Your task to perform on an android device: check android version Image 0: 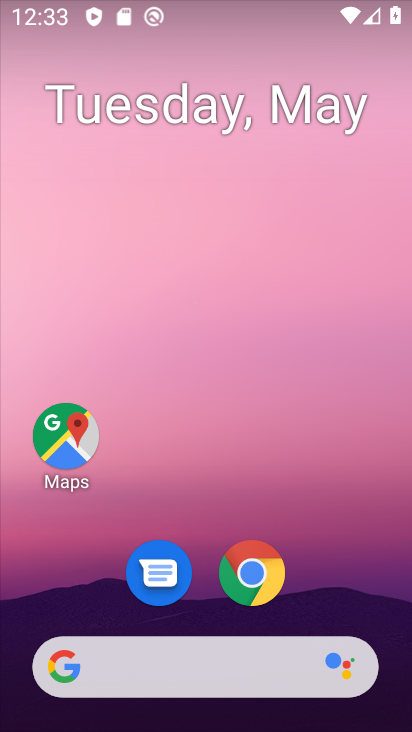
Step 0: drag from (325, 498) to (286, 19)
Your task to perform on an android device: check android version Image 1: 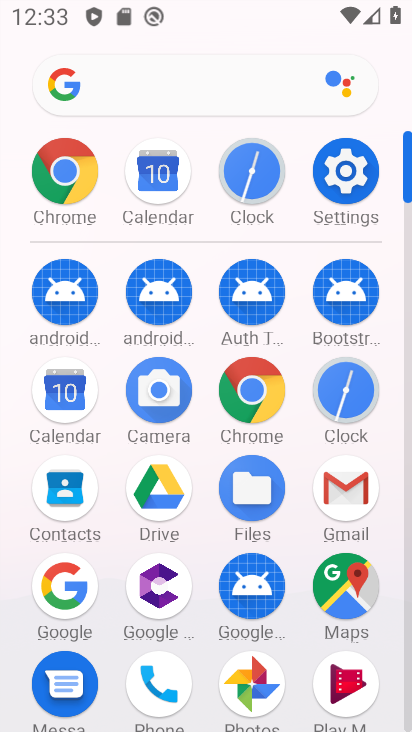
Step 1: click (338, 167)
Your task to perform on an android device: check android version Image 2: 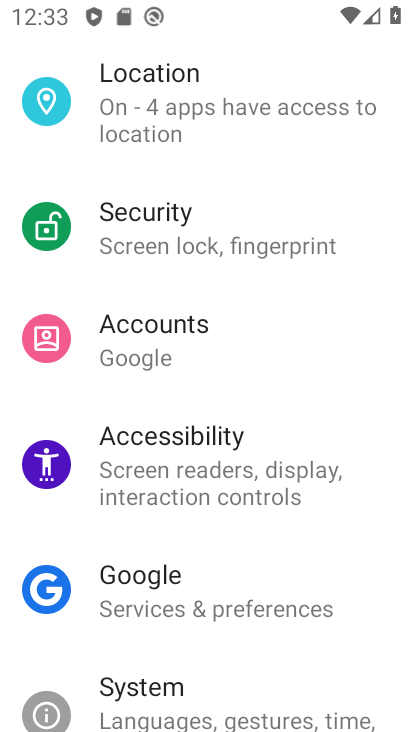
Step 2: drag from (338, 167) to (305, 544)
Your task to perform on an android device: check android version Image 3: 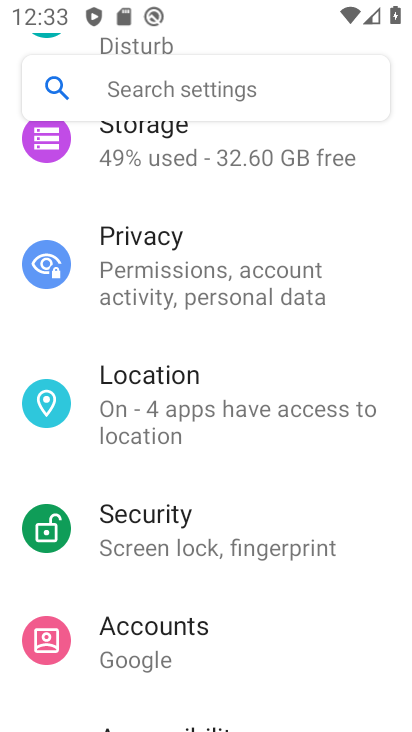
Step 3: drag from (281, 218) to (327, 547)
Your task to perform on an android device: check android version Image 4: 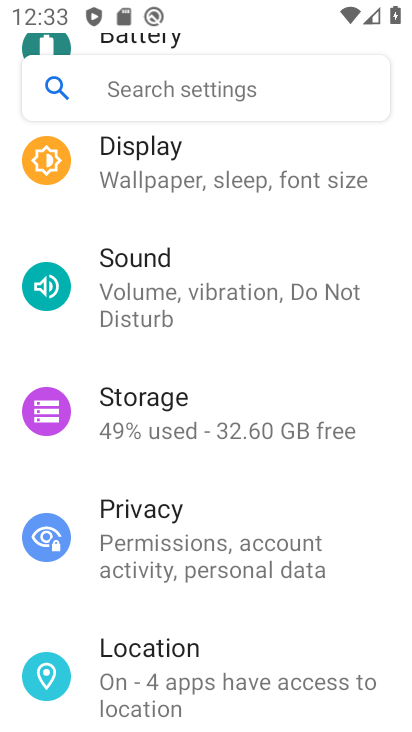
Step 4: drag from (237, 204) to (230, 528)
Your task to perform on an android device: check android version Image 5: 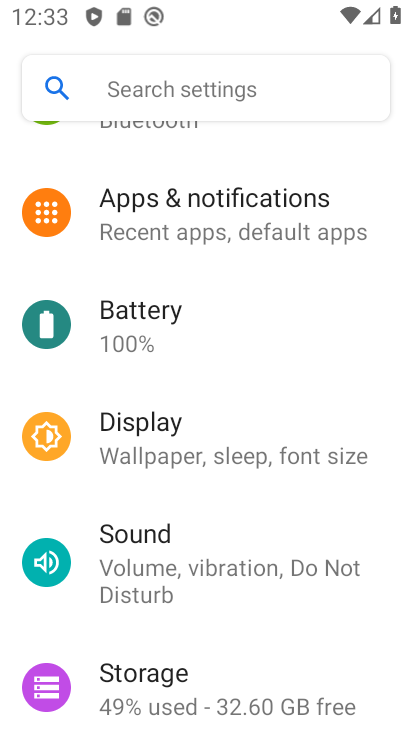
Step 5: drag from (283, 680) to (363, 169)
Your task to perform on an android device: check android version Image 6: 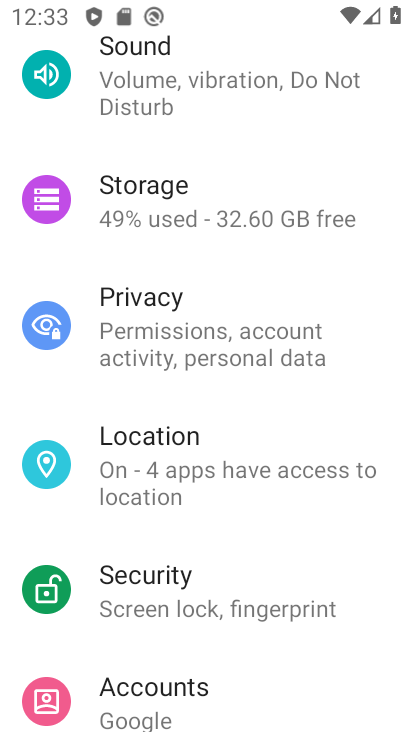
Step 6: drag from (227, 580) to (247, 59)
Your task to perform on an android device: check android version Image 7: 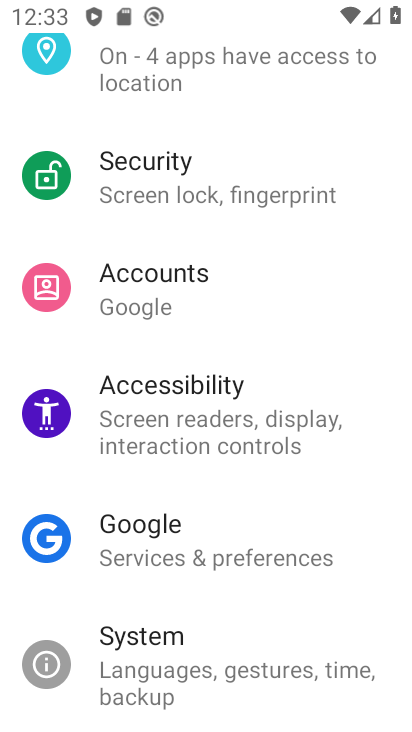
Step 7: drag from (256, 528) to (338, 98)
Your task to perform on an android device: check android version Image 8: 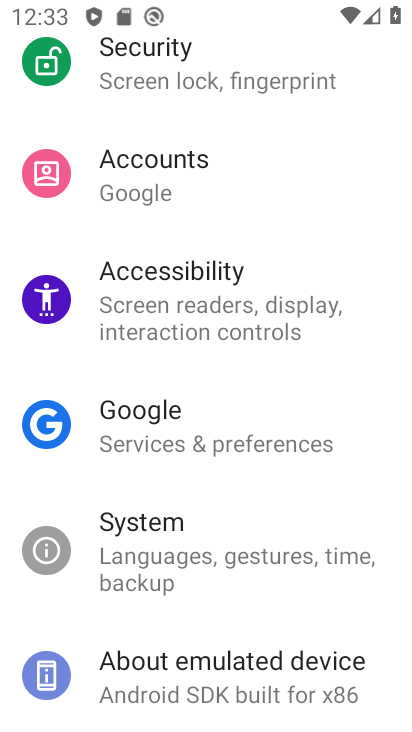
Step 8: drag from (277, 526) to (316, 152)
Your task to perform on an android device: check android version Image 9: 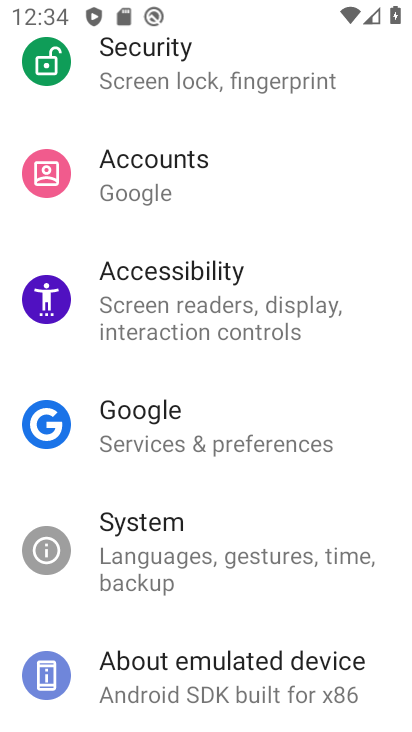
Step 9: click (233, 673)
Your task to perform on an android device: check android version Image 10: 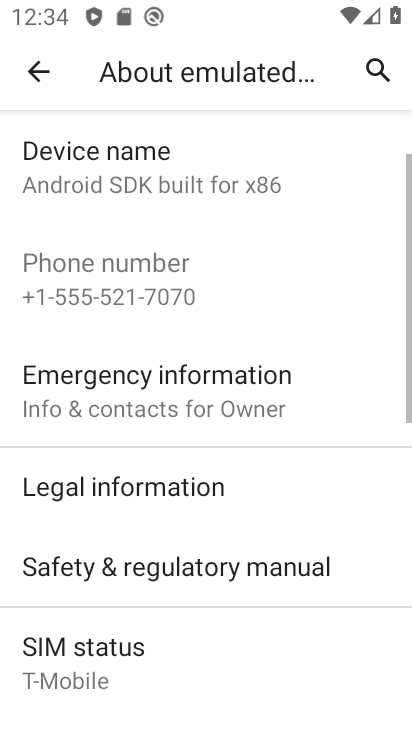
Step 10: drag from (240, 635) to (174, 211)
Your task to perform on an android device: check android version Image 11: 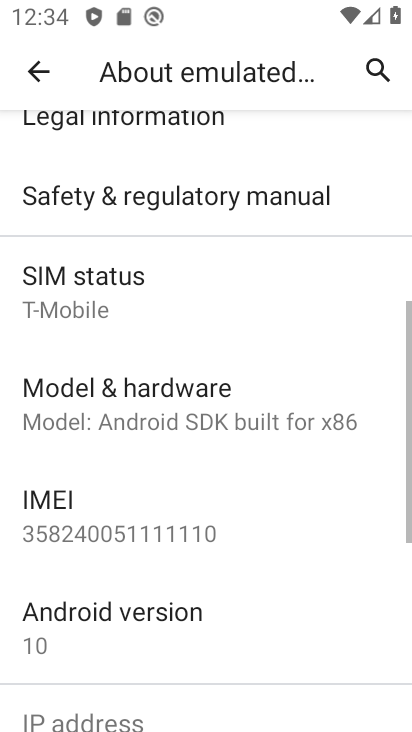
Step 11: drag from (178, 612) to (215, 139)
Your task to perform on an android device: check android version Image 12: 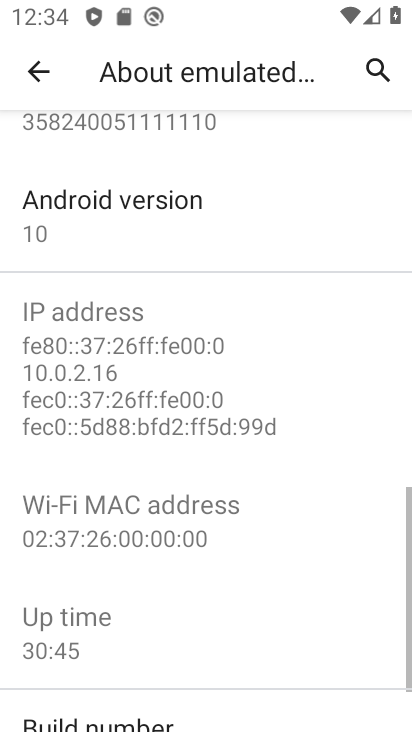
Step 12: click (132, 234)
Your task to perform on an android device: check android version Image 13: 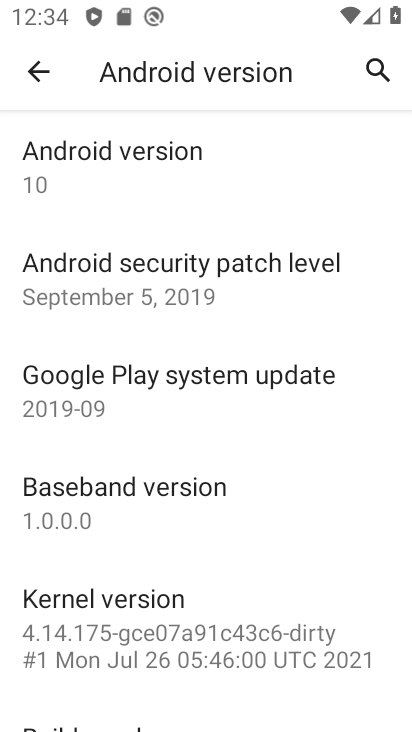
Step 13: task complete